Your task to perform on an android device: Search for sushi restaurants on Maps Image 0: 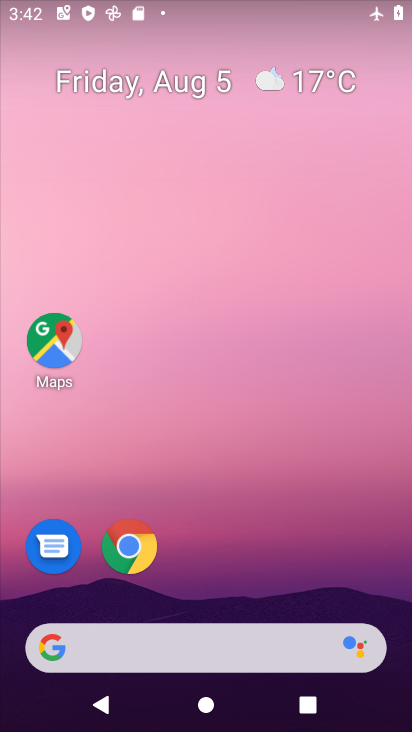
Step 0: press home button
Your task to perform on an android device: Search for sushi restaurants on Maps Image 1: 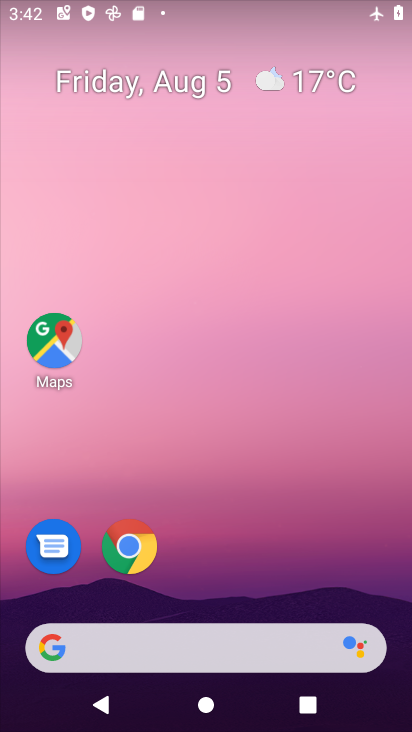
Step 1: drag from (278, 561) to (306, 132)
Your task to perform on an android device: Search for sushi restaurants on Maps Image 2: 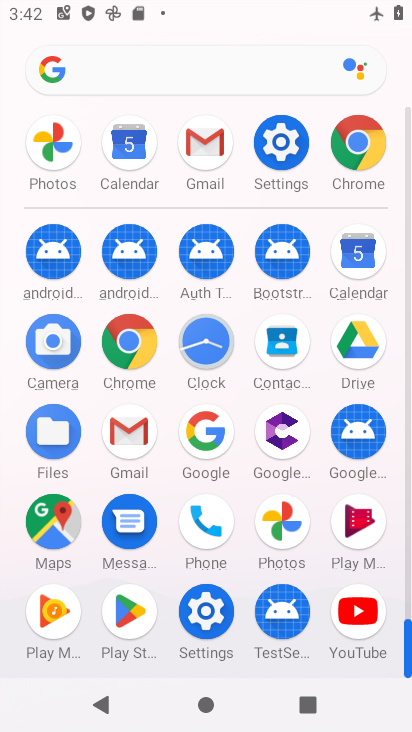
Step 2: click (55, 524)
Your task to perform on an android device: Search for sushi restaurants on Maps Image 3: 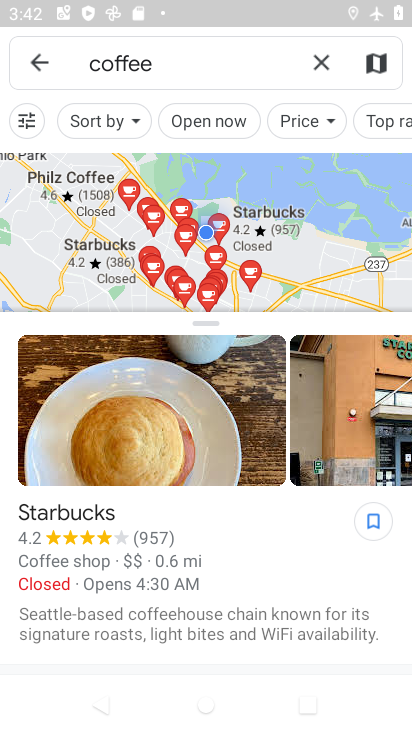
Step 3: click (323, 58)
Your task to perform on an android device: Search for sushi restaurants on Maps Image 4: 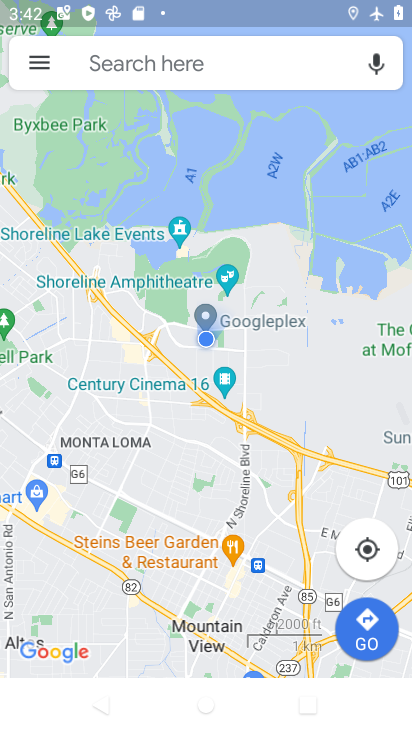
Step 4: click (172, 62)
Your task to perform on an android device: Search for sushi restaurants on Maps Image 5: 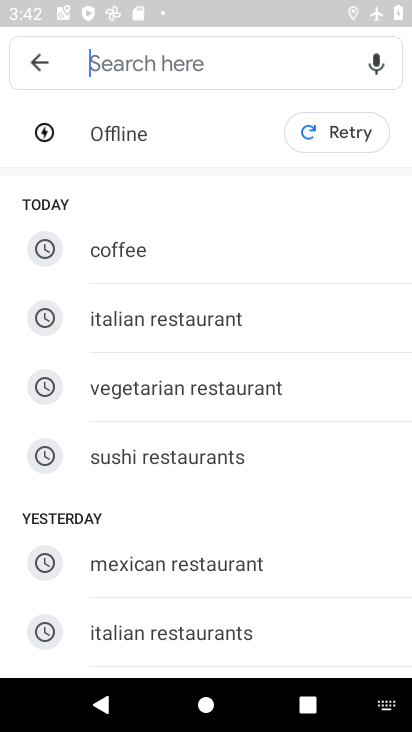
Step 5: type "sushi restaurants"
Your task to perform on an android device: Search for sushi restaurants on Maps Image 6: 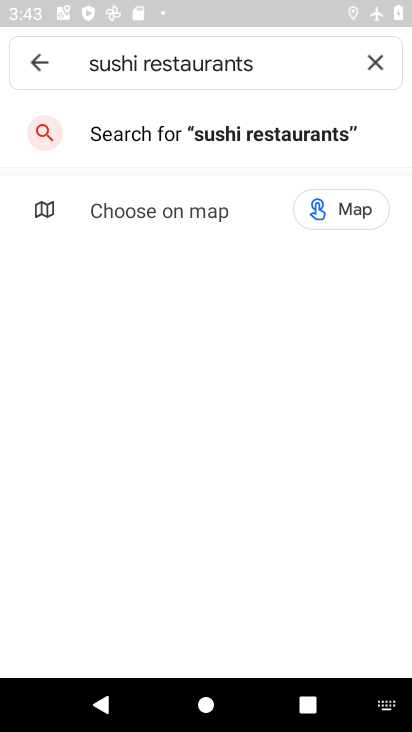
Step 6: task complete